Your task to perform on an android device: Open Google Chrome and click the shortcut for Amazon.com Image 0: 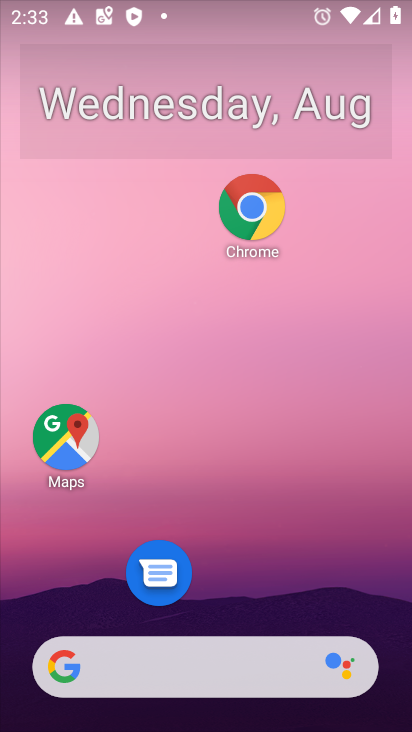
Step 0: drag from (208, 658) to (260, 158)
Your task to perform on an android device: Open Google Chrome and click the shortcut for Amazon.com Image 1: 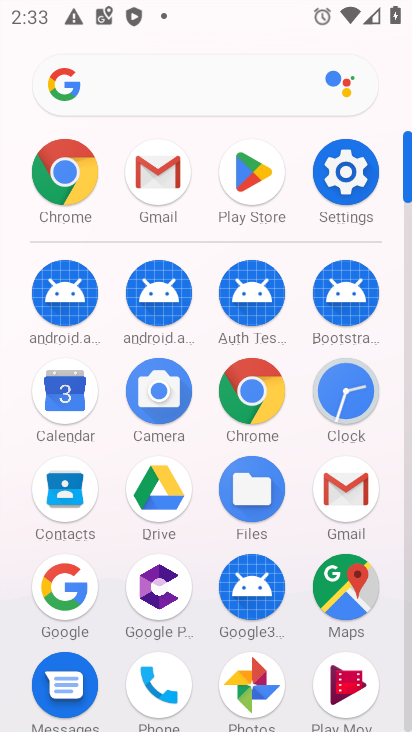
Step 1: click (74, 196)
Your task to perform on an android device: Open Google Chrome and click the shortcut for Amazon.com Image 2: 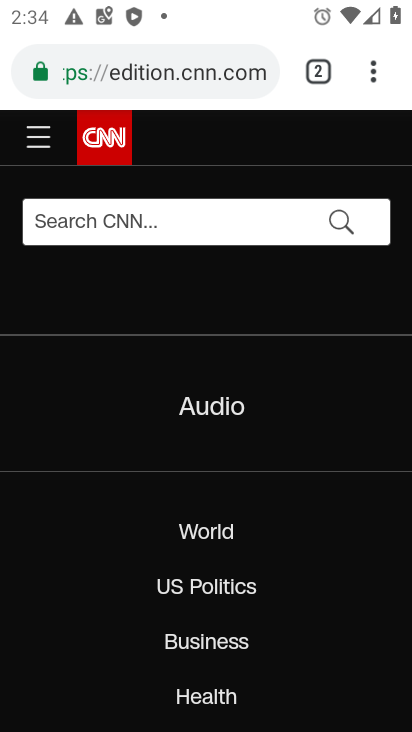
Step 2: drag from (314, 71) to (316, 222)
Your task to perform on an android device: Open Google Chrome and click the shortcut for Amazon.com Image 3: 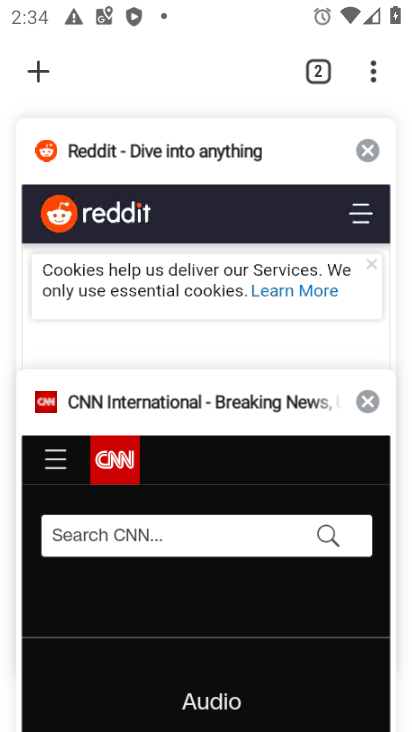
Step 3: click (40, 71)
Your task to perform on an android device: Open Google Chrome and click the shortcut for Amazon.com Image 4: 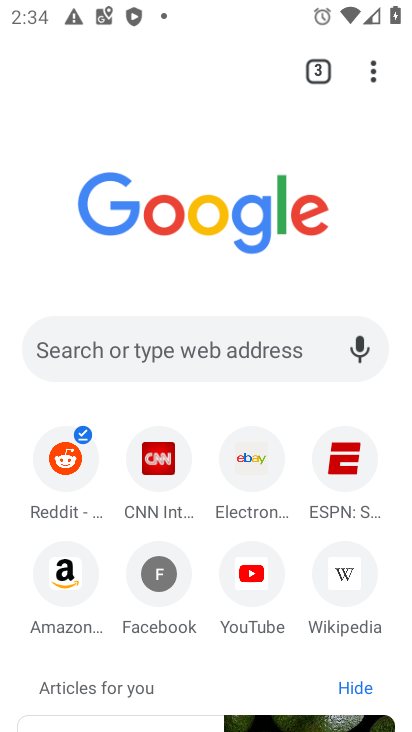
Step 4: click (84, 596)
Your task to perform on an android device: Open Google Chrome and click the shortcut for Amazon.com Image 5: 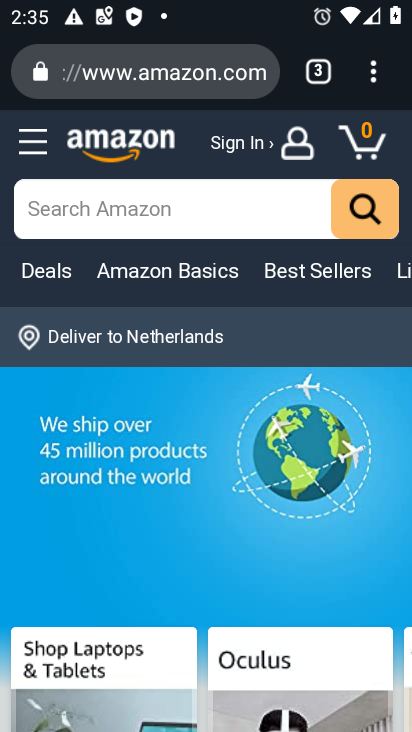
Step 5: task complete